Your task to perform on an android device: install app "Speedtest by Ookla" Image 0: 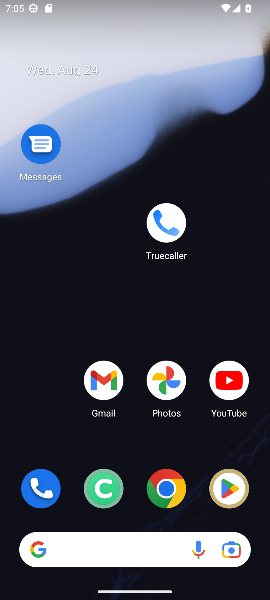
Step 0: click (217, 490)
Your task to perform on an android device: install app "Speedtest by Ookla" Image 1: 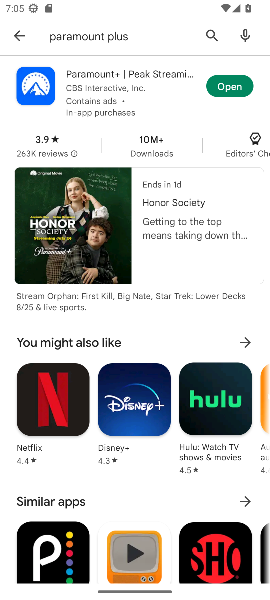
Step 1: click (205, 25)
Your task to perform on an android device: install app "Speedtest by Ookla" Image 2: 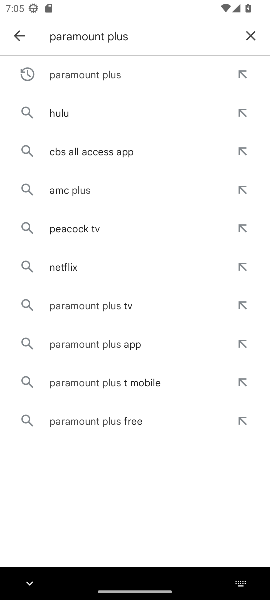
Step 2: click (246, 37)
Your task to perform on an android device: install app "Speedtest by Ookla" Image 3: 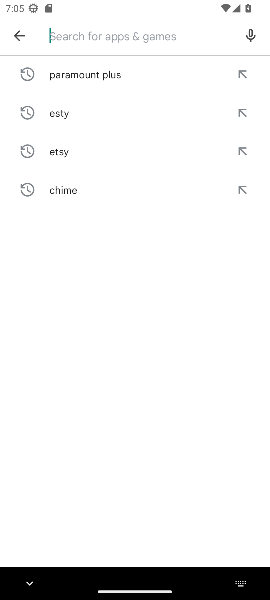
Step 3: type "speedtest"
Your task to perform on an android device: install app "Speedtest by Ookla" Image 4: 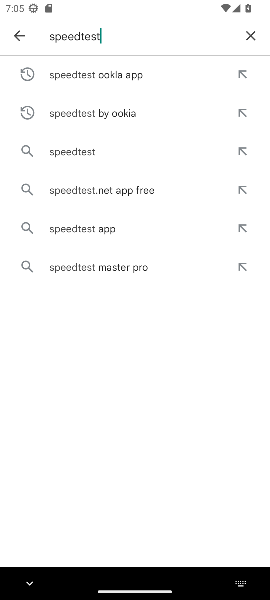
Step 4: click (120, 83)
Your task to perform on an android device: install app "Speedtest by Ookla" Image 5: 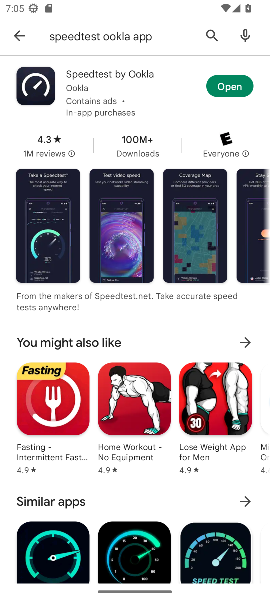
Step 5: click (234, 90)
Your task to perform on an android device: install app "Speedtest by Ookla" Image 6: 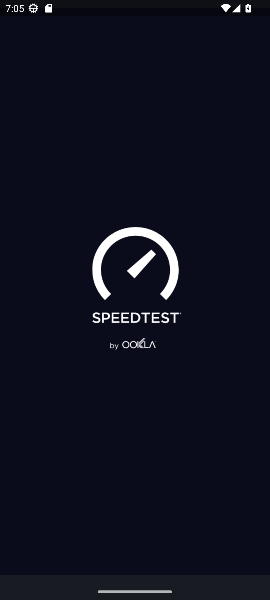
Step 6: task complete